Your task to perform on an android device: add a contact Image 0: 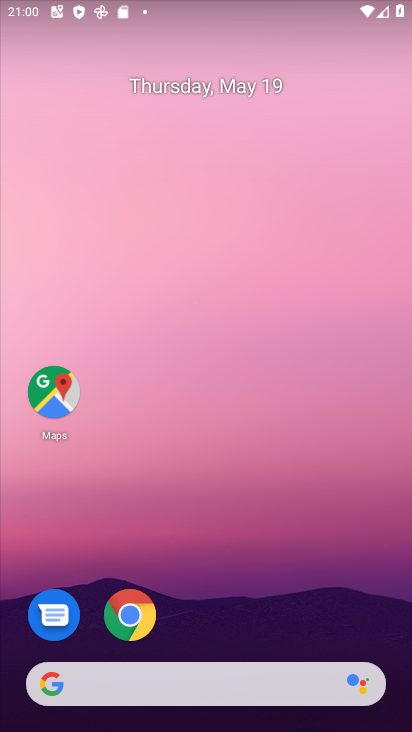
Step 0: drag from (237, 610) to (257, 60)
Your task to perform on an android device: add a contact Image 1: 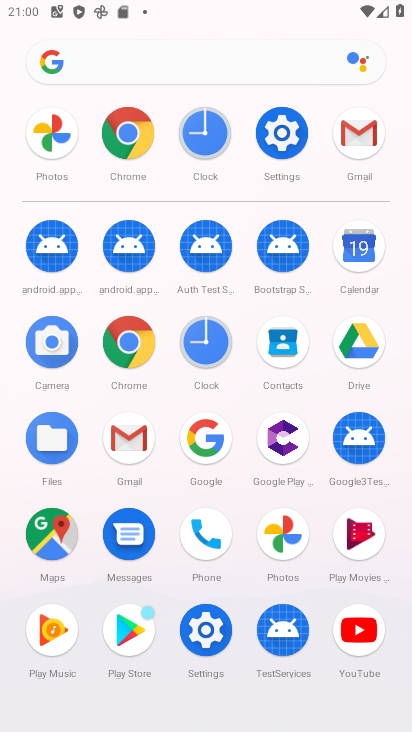
Step 1: click (287, 336)
Your task to perform on an android device: add a contact Image 2: 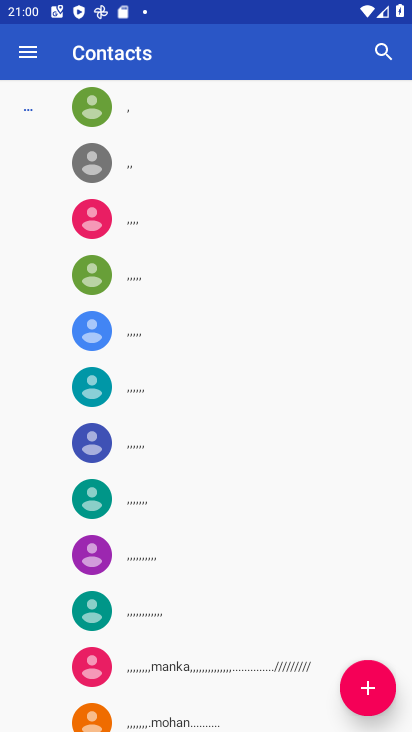
Step 2: click (361, 693)
Your task to perform on an android device: add a contact Image 3: 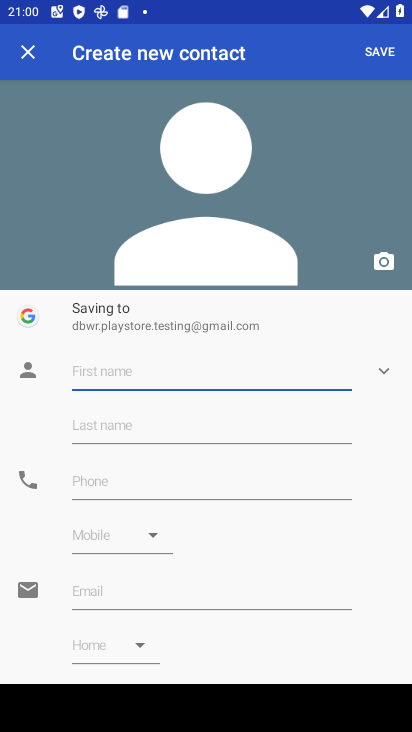
Step 3: type "jhefe"
Your task to perform on an android device: add a contact Image 4: 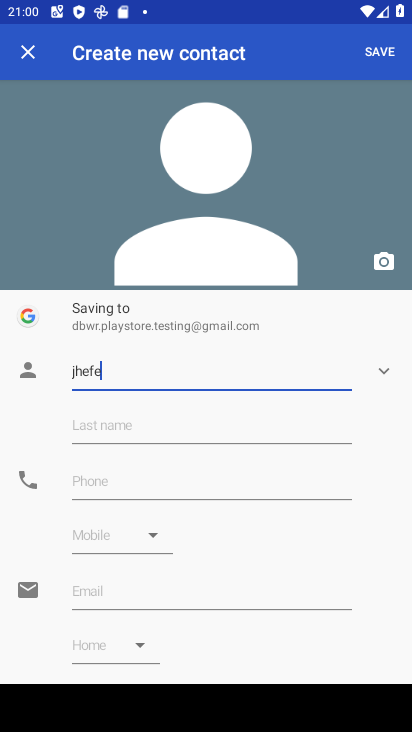
Step 4: click (369, 45)
Your task to perform on an android device: add a contact Image 5: 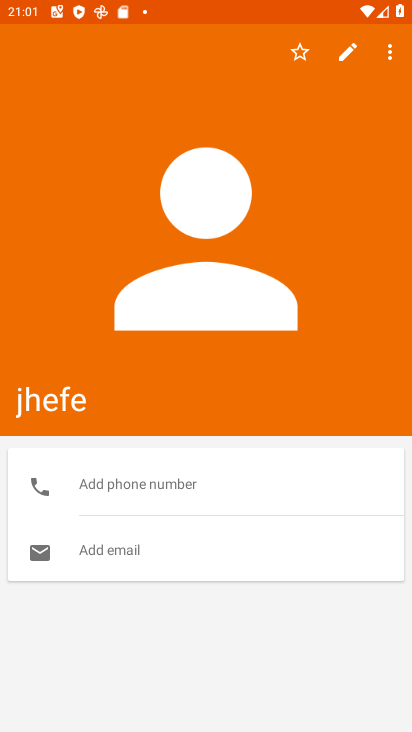
Step 5: task complete